Your task to perform on an android device: Check the weather Image 0: 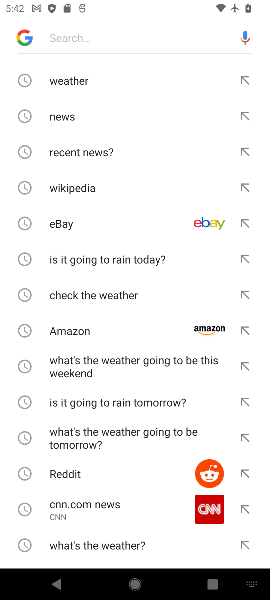
Step 0: press home button
Your task to perform on an android device: Check the weather Image 1: 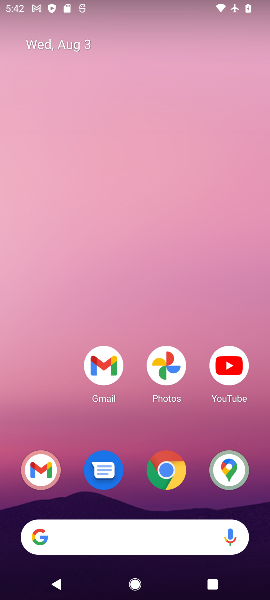
Step 1: drag from (130, 416) to (169, 73)
Your task to perform on an android device: Check the weather Image 2: 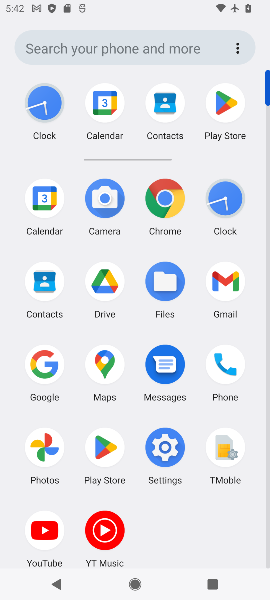
Step 2: click (167, 201)
Your task to perform on an android device: Check the weather Image 3: 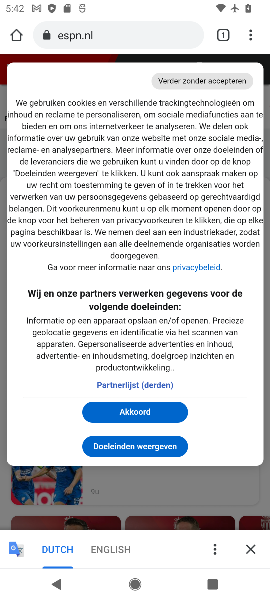
Step 3: click (144, 41)
Your task to perform on an android device: Check the weather Image 4: 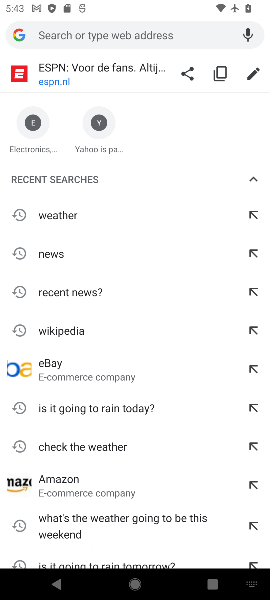
Step 4: click (101, 217)
Your task to perform on an android device: Check the weather Image 5: 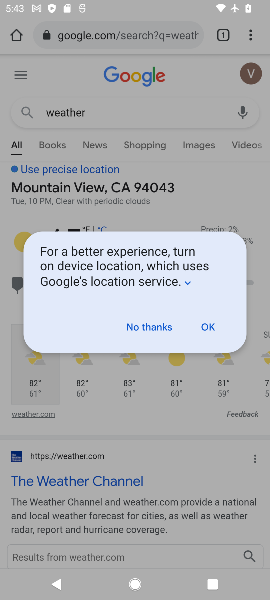
Step 5: task complete